Your task to perform on an android device: toggle sleep mode Image 0: 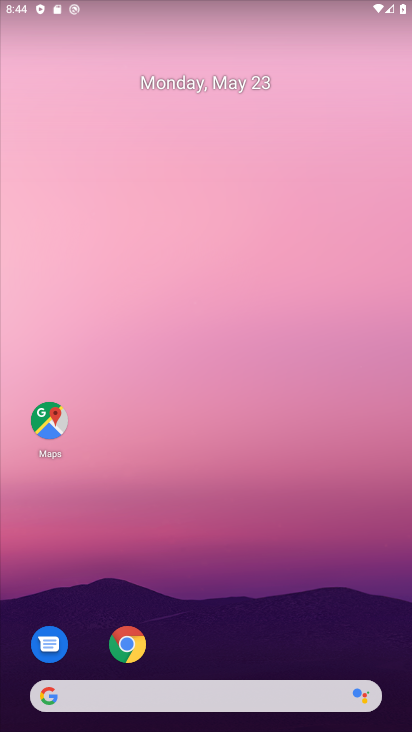
Step 0: drag from (214, 642) to (219, 75)
Your task to perform on an android device: toggle sleep mode Image 1: 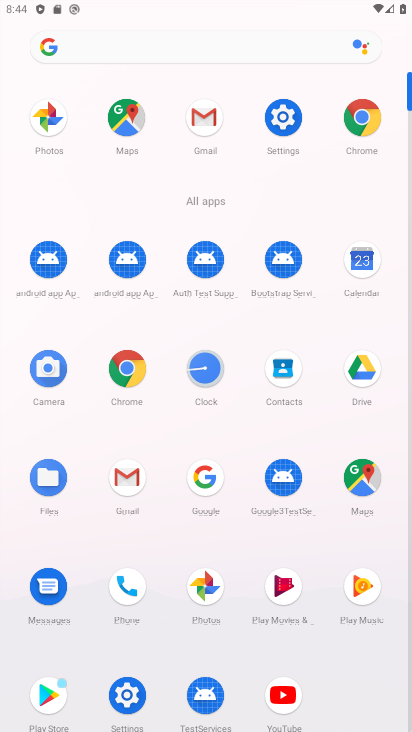
Step 1: click (283, 105)
Your task to perform on an android device: toggle sleep mode Image 2: 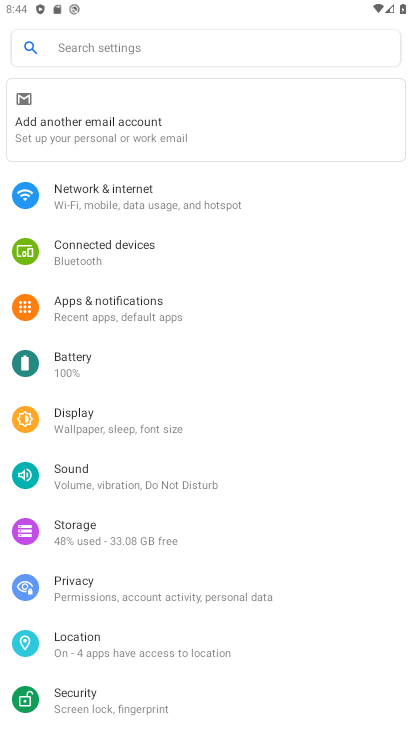
Step 2: click (105, 411)
Your task to perform on an android device: toggle sleep mode Image 3: 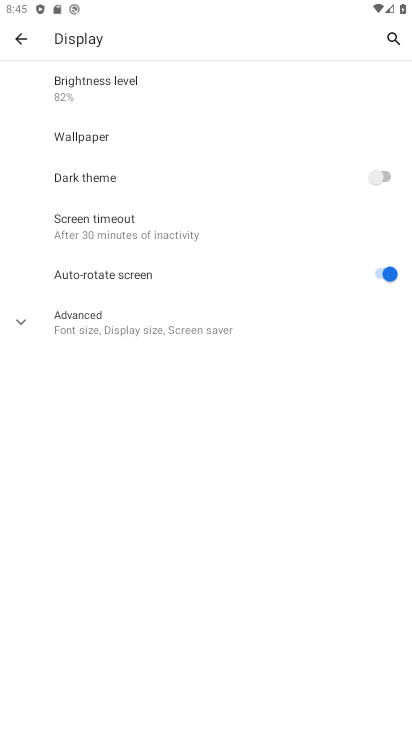
Step 3: click (32, 318)
Your task to perform on an android device: toggle sleep mode Image 4: 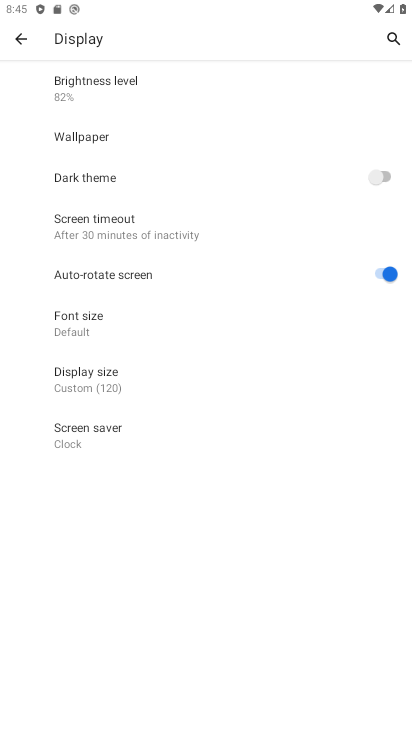
Step 4: task complete